Your task to perform on an android device: Show me recent news Image 0: 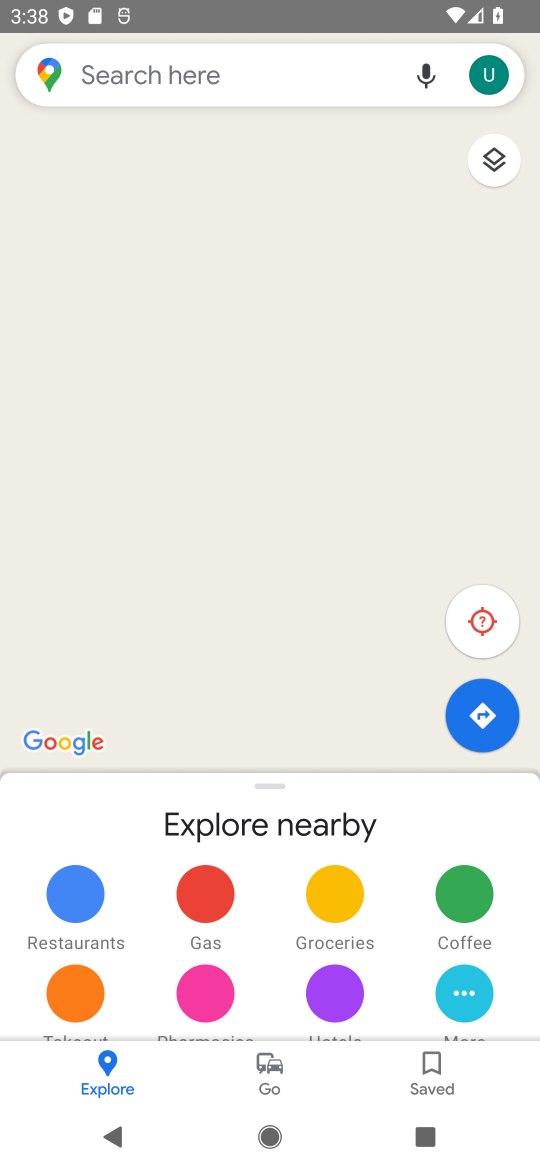
Step 0: press home button
Your task to perform on an android device: Show me recent news Image 1: 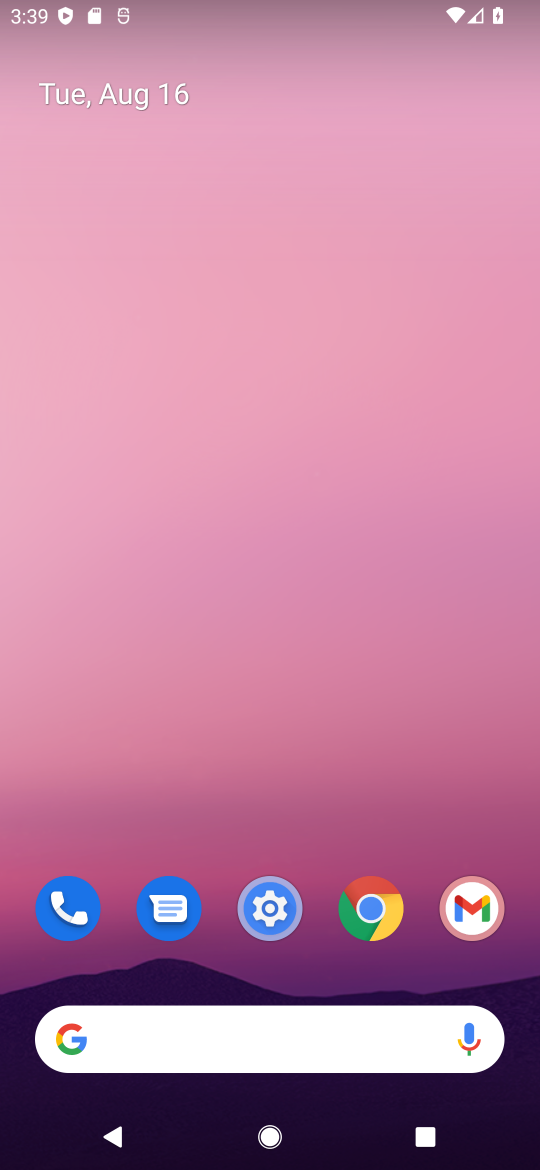
Step 1: task complete